Your task to perform on an android device: Open wifi settings Image 0: 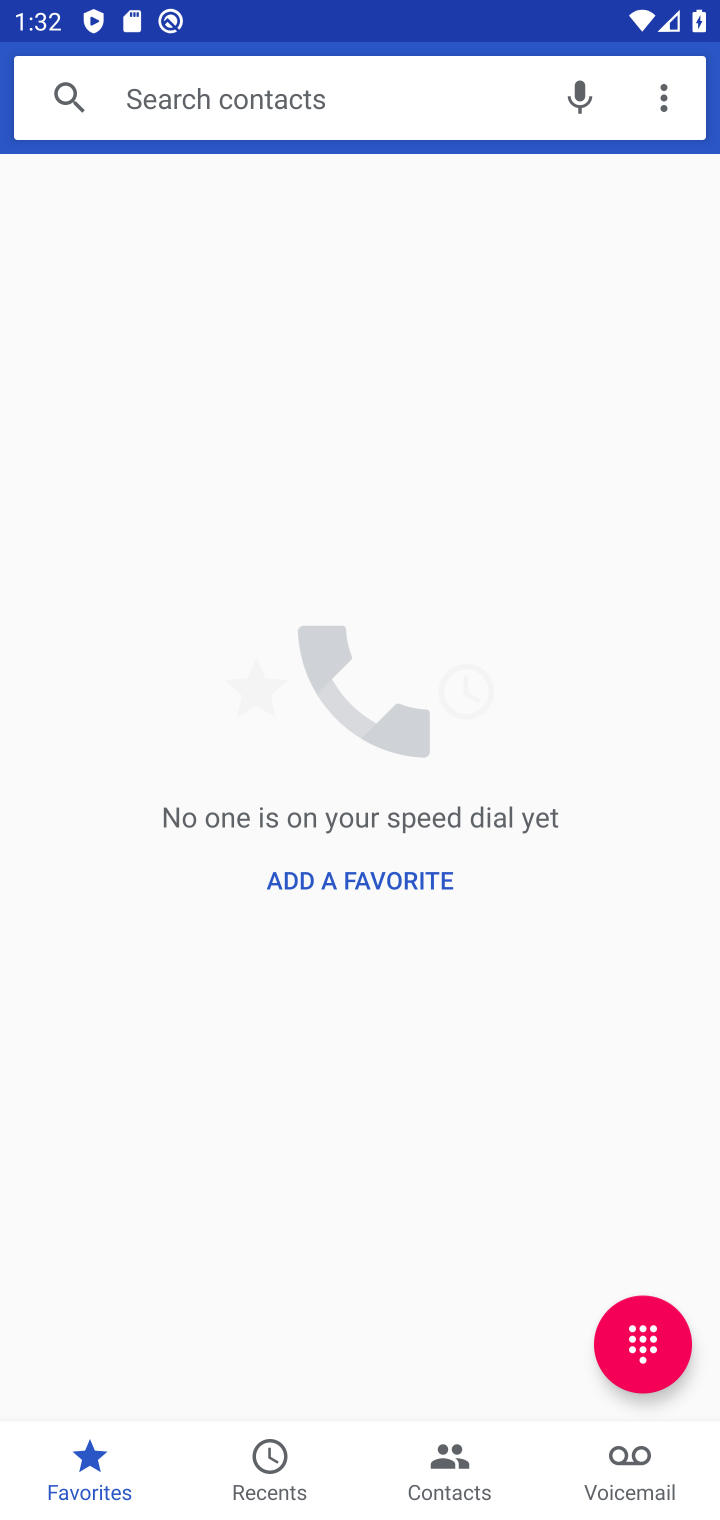
Step 0: press home button
Your task to perform on an android device: Open wifi settings Image 1: 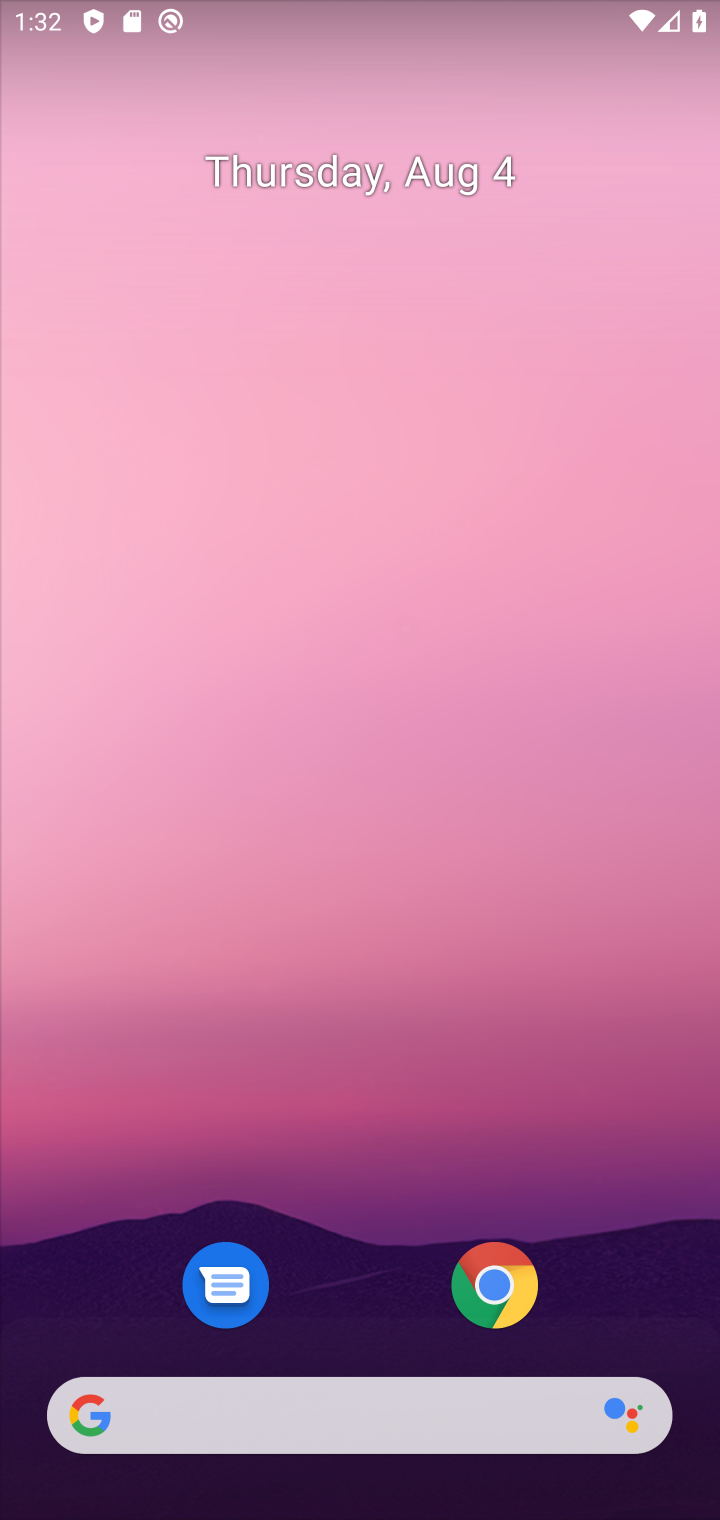
Step 1: drag from (659, 1280) to (594, 166)
Your task to perform on an android device: Open wifi settings Image 2: 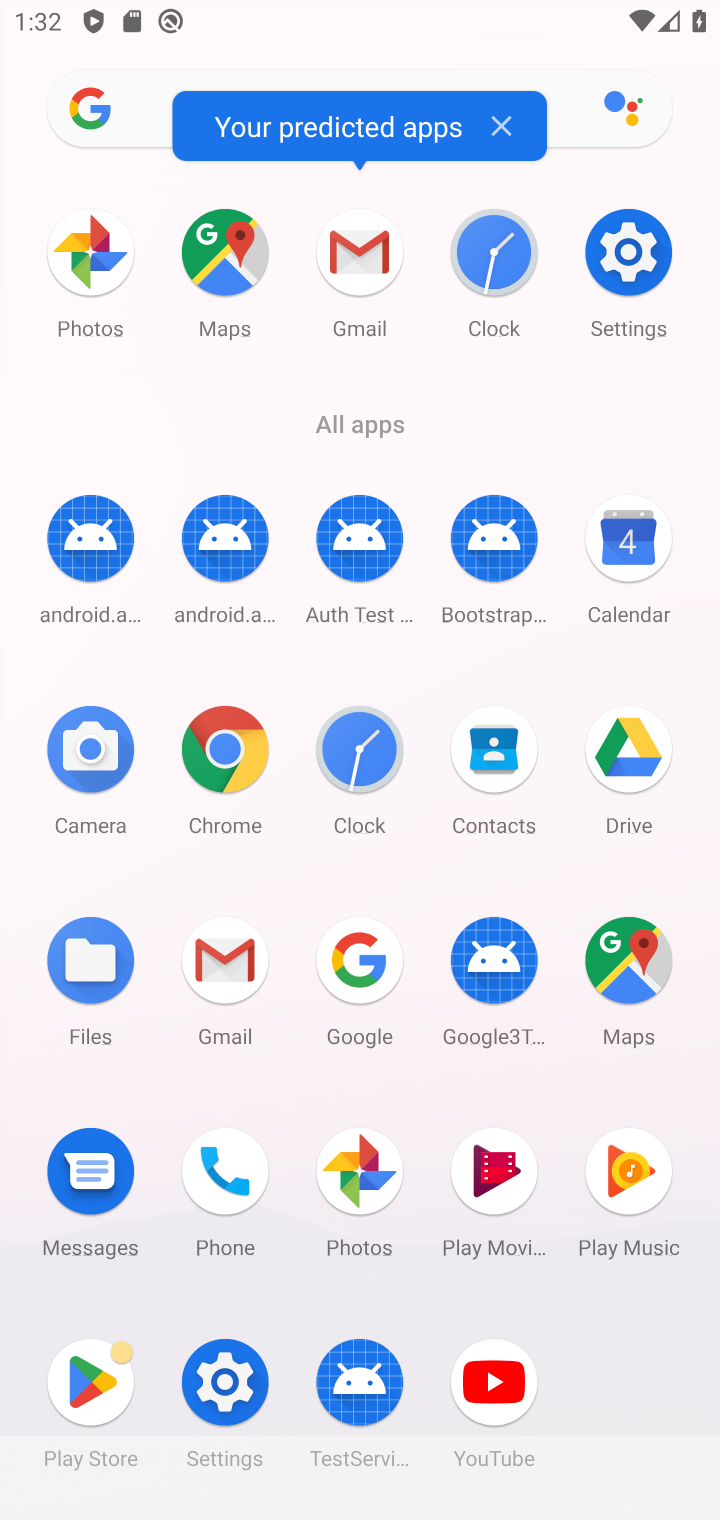
Step 2: click (231, 1379)
Your task to perform on an android device: Open wifi settings Image 3: 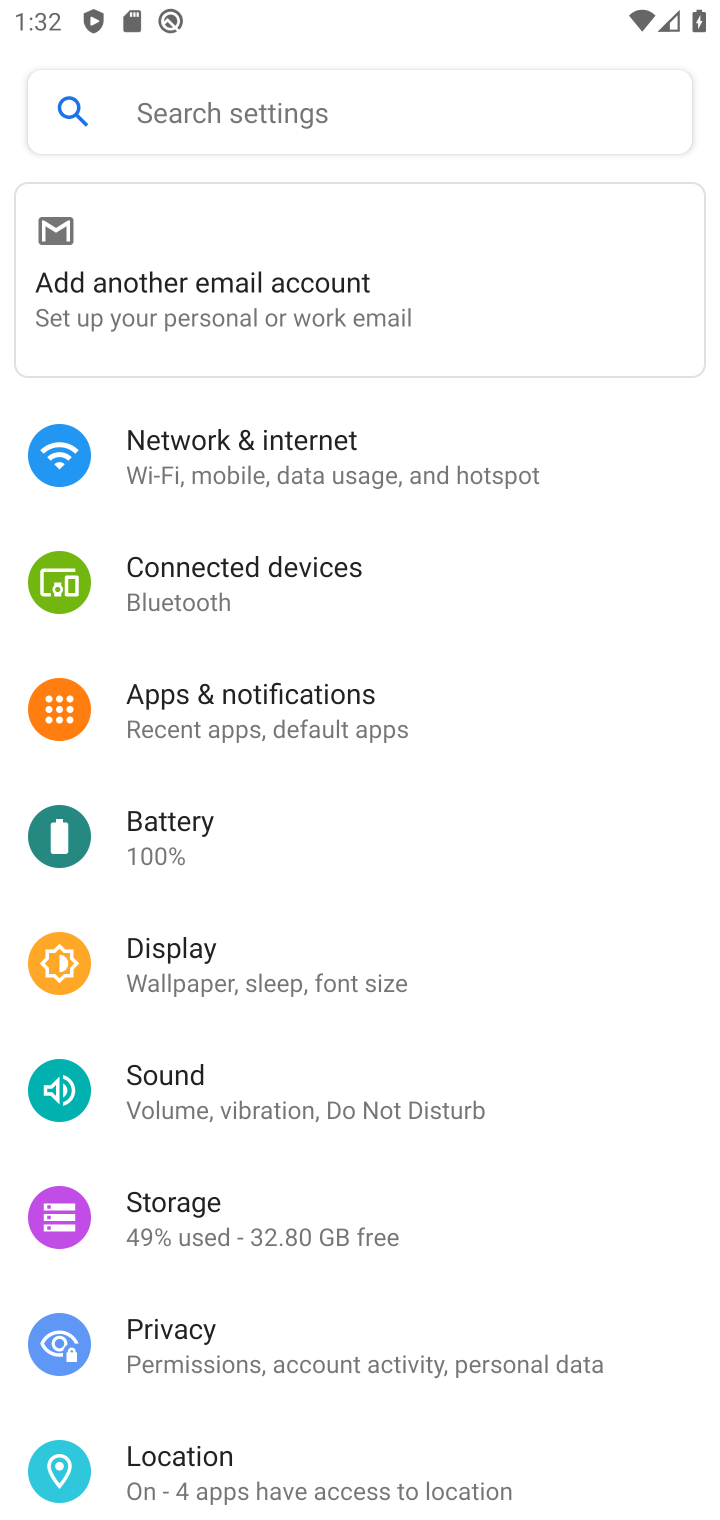
Step 3: click (220, 426)
Your task to perform on an android device: Open wifi settings Image 4: 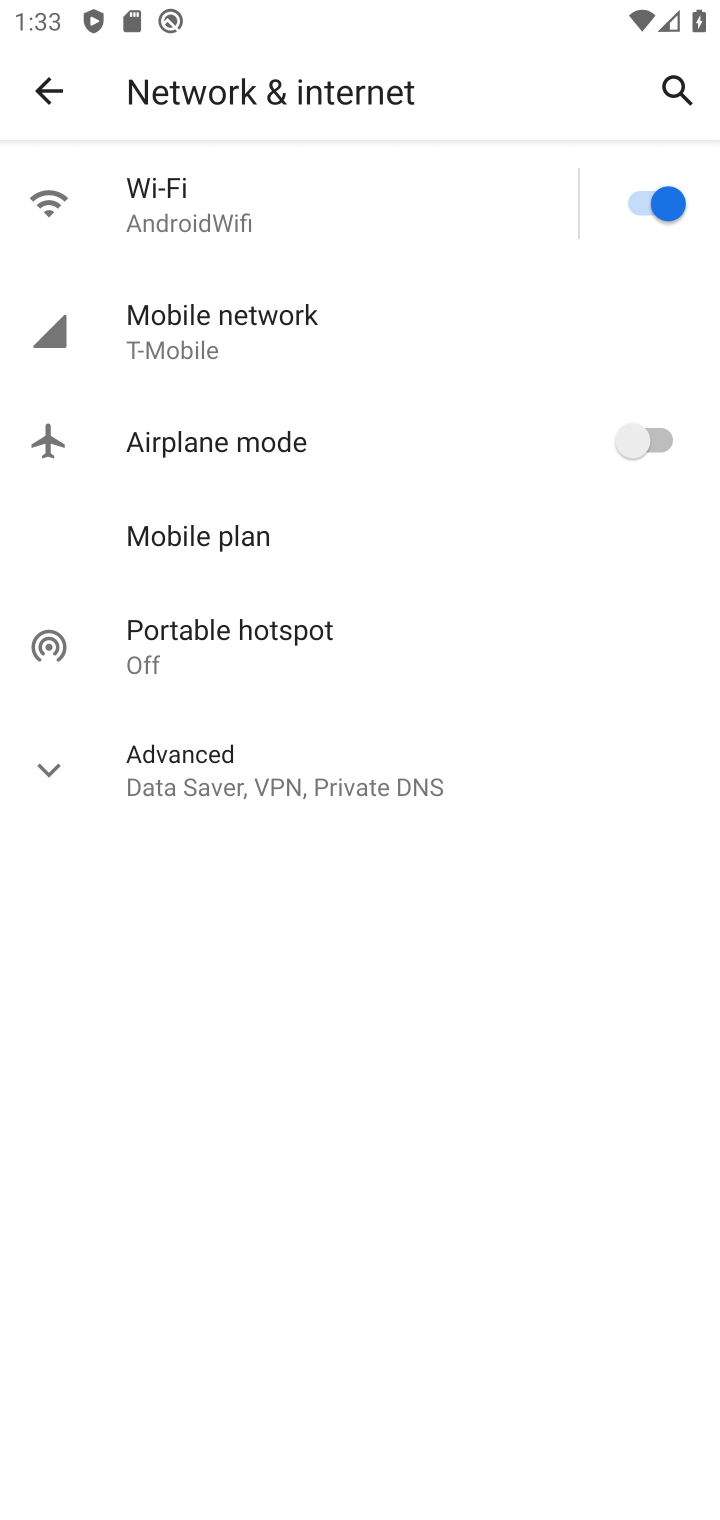
Step 4: click (150, 181)
Your task to perform on an android device: Open wifi settings Image 5: 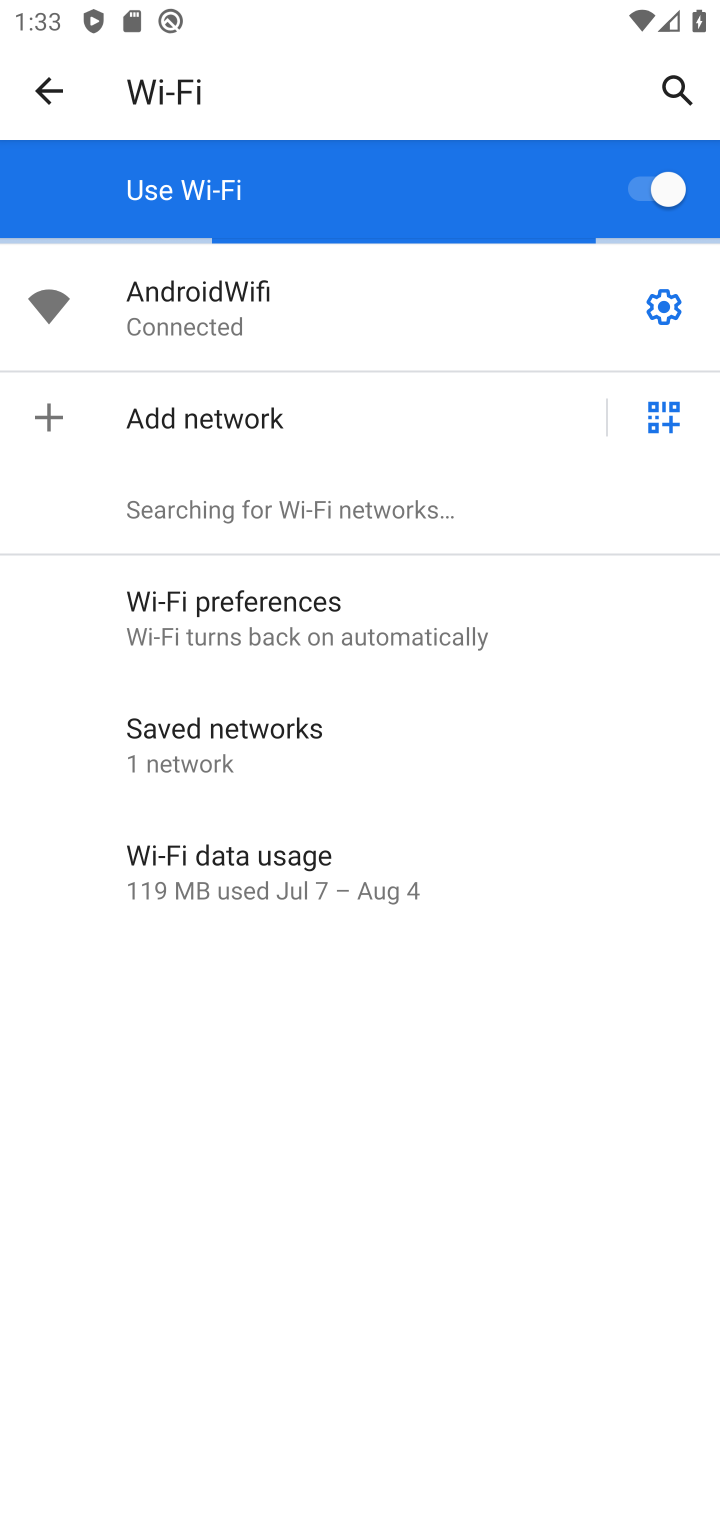
Step 5: click (666, 309)
Your task to perform on an android device: Open wifi settings Image 6: 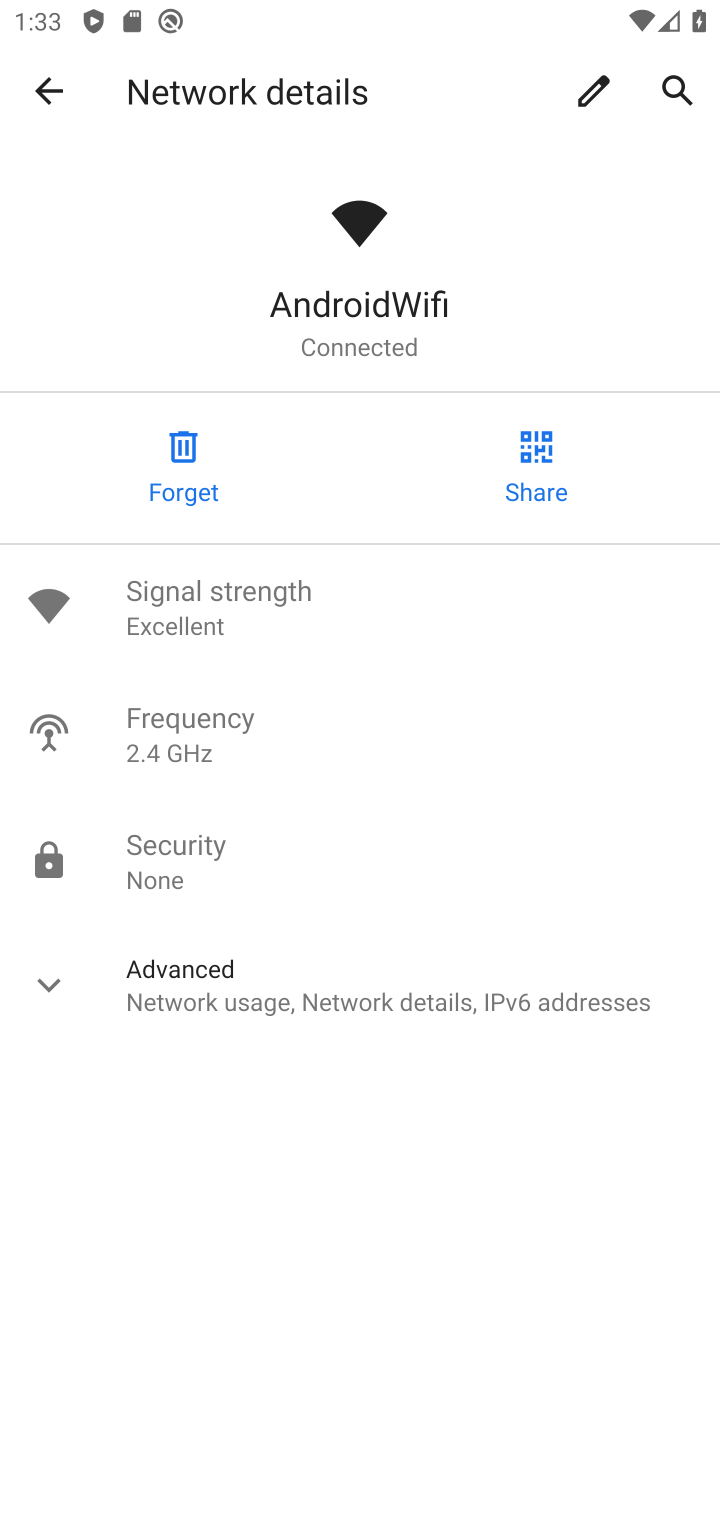
Step 6: task complete